Your task to perform on an android device: Go to display settings Image 0: 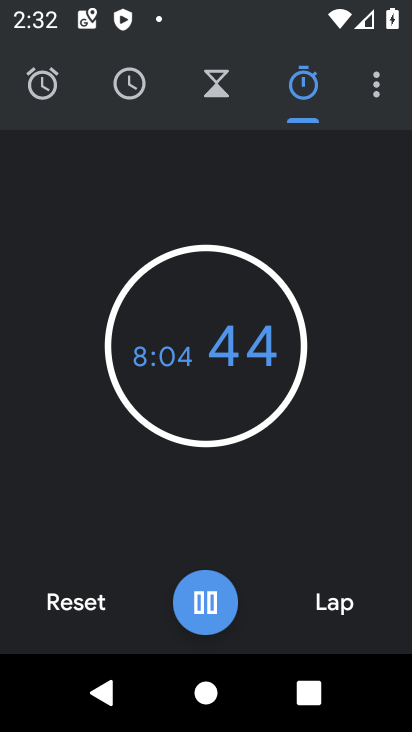
Step 0: press home button
Your task to perform on an android device: Go to display settings Image 1: 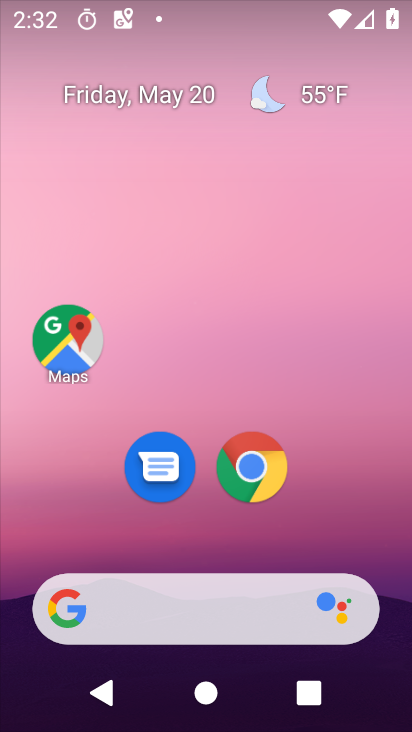
Step 1: drag from (220, 539) to (175, 32)
Your task to perform on an android device: Go to display settings Image 2: 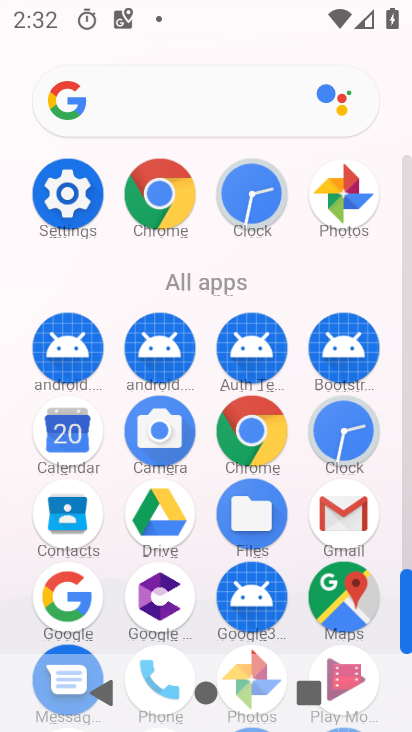
Step 2: click (69, 215)
Your task to perform on an android device: Go to display settings Image 3: 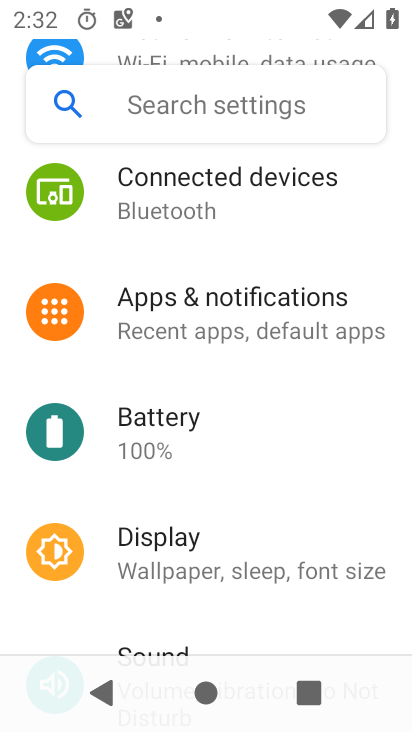
Step 3: click (183, 560)
Your task to perform on an android device: Go to display settings Image 4: 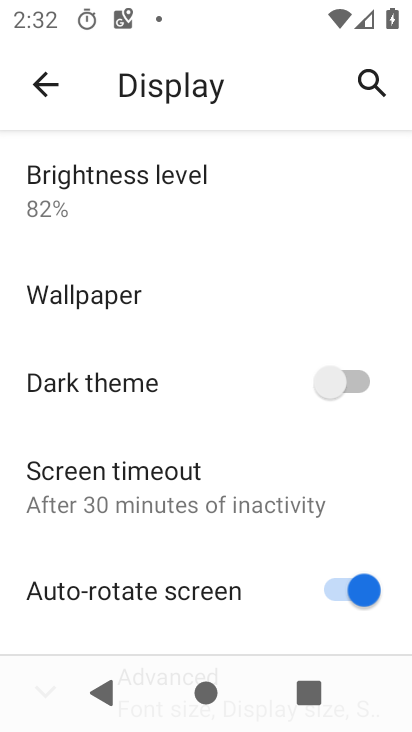
Step 4: task complete